Your task to perform on an android device: Show me popular games on the Play Store Image 0: 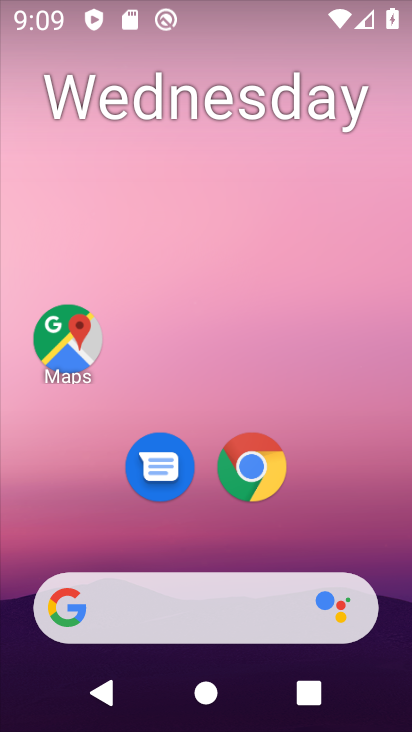
Step 0: drag from (326, 527) to (224, 41)
Your task to perform on an android device: Show me popular games on the Play Store Image 1: 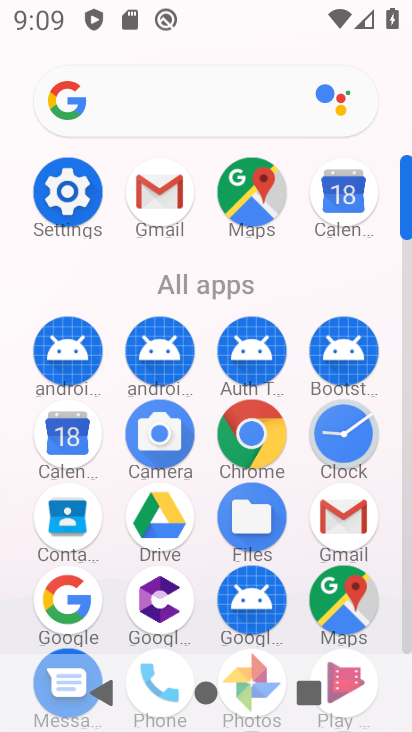
Step 1: drag from (205, 577) to (205, 187)
Your task to perform on an android device: Show me popular games on the Play Store Image 2: 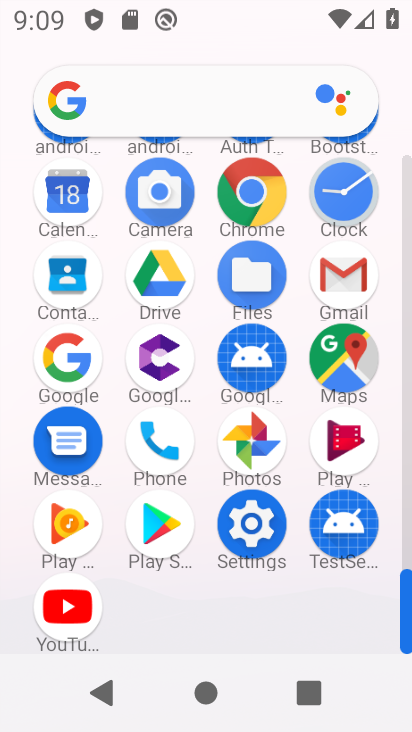
Step 2: click (166, 540)
Your task to perform on an android device: Show me popular games on the Play Store Image 3: 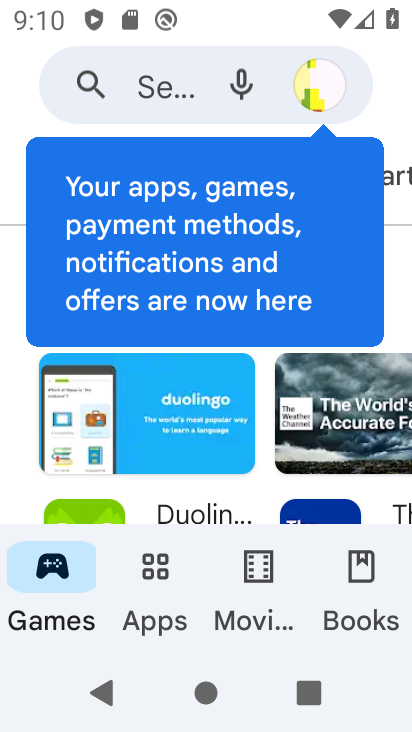
Step 3: click (29, 102)
Your task to perform on an android device: Show me popular games on the Play Store Image 4: 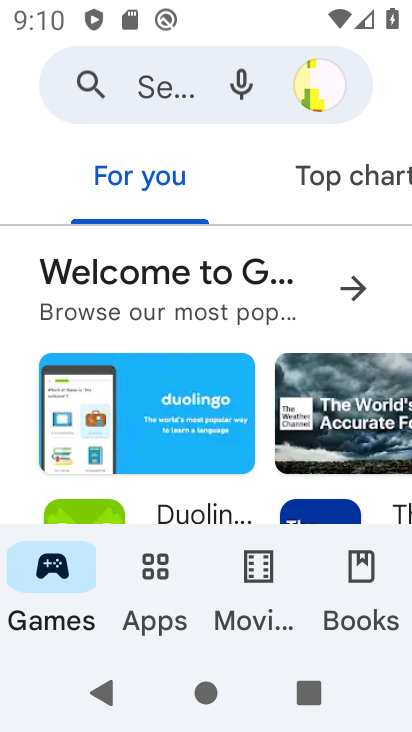
Step 4: click (303, 182)
Your task to perform on an android device: Show me popular games on the Play Store Image 5: 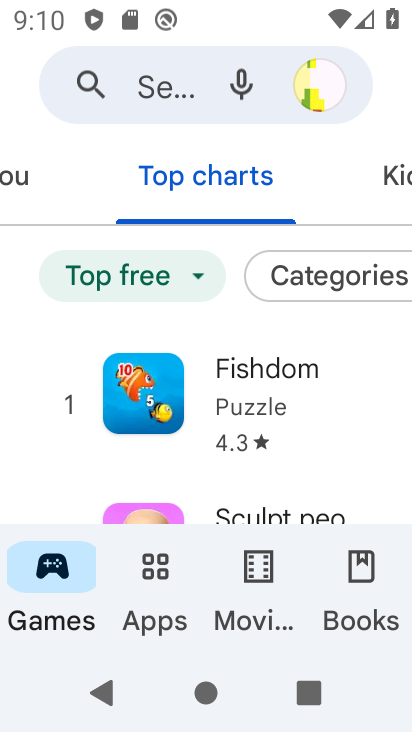
Step 5: task complete